Your task to perform on an android device: Show the shopping cart on newegg.com. Search for alienware area 51 on newegg.com, select the first entry, add it to the cart, then select checkout. Image 0: 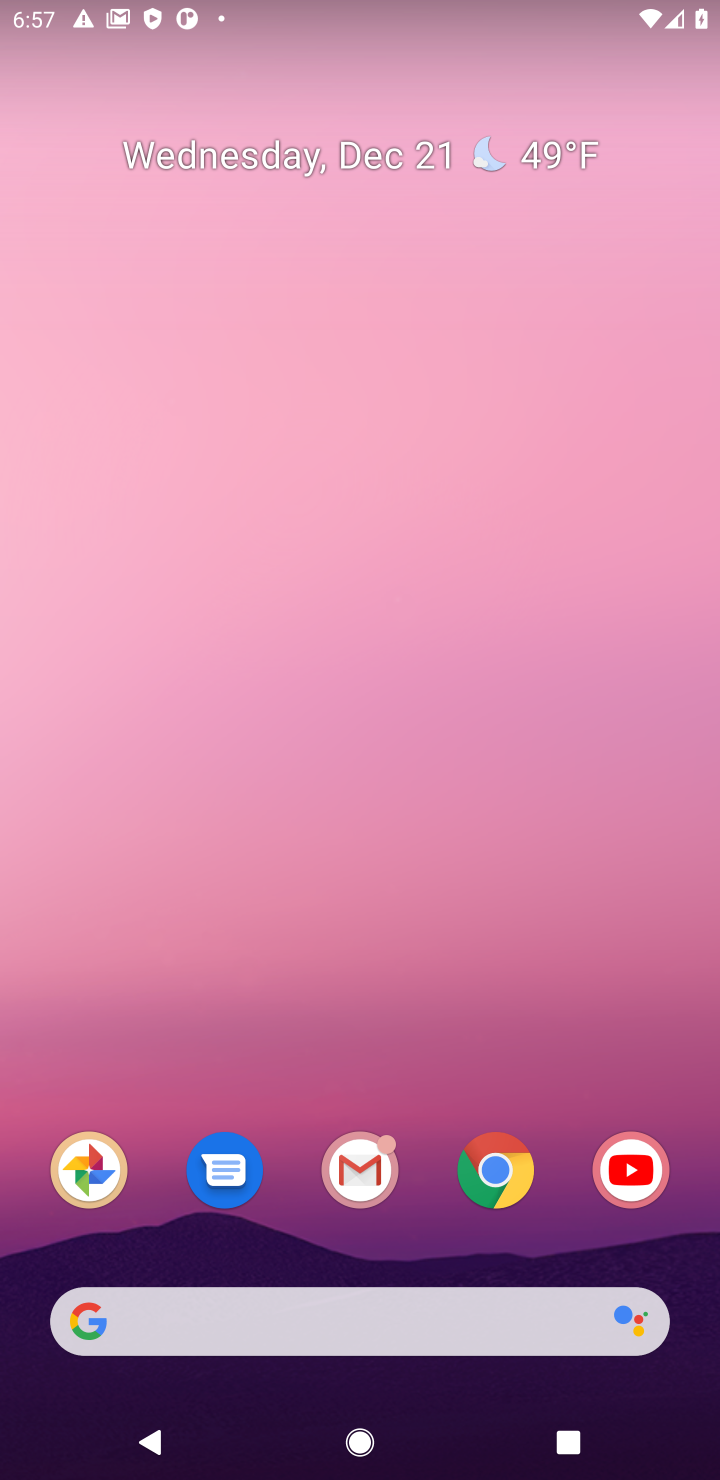
Step 0: click (492, 1168)
Your task to perform on an android device: Show the shopping cart on newegg.com. Search for alienware area 51 on newegg.com, select the first entry, add it to the cart, then select checkout. Image 1: 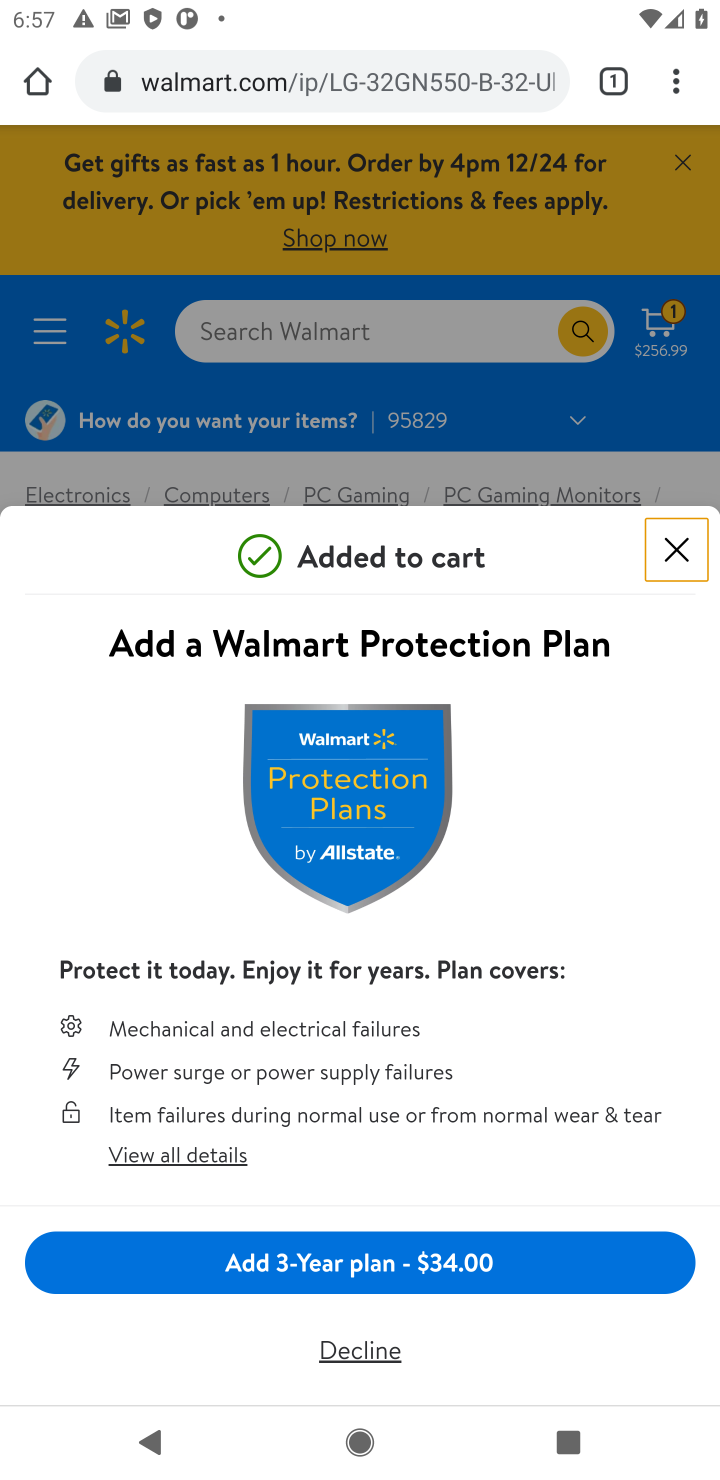
Step 1: click (678, 554)
Your task to perform on an android device: Show the shopping cart on newegg.com. Search for alienware area 51 on newegg.com, select the first entry, add it to the cart, then select checkout. Image 2: 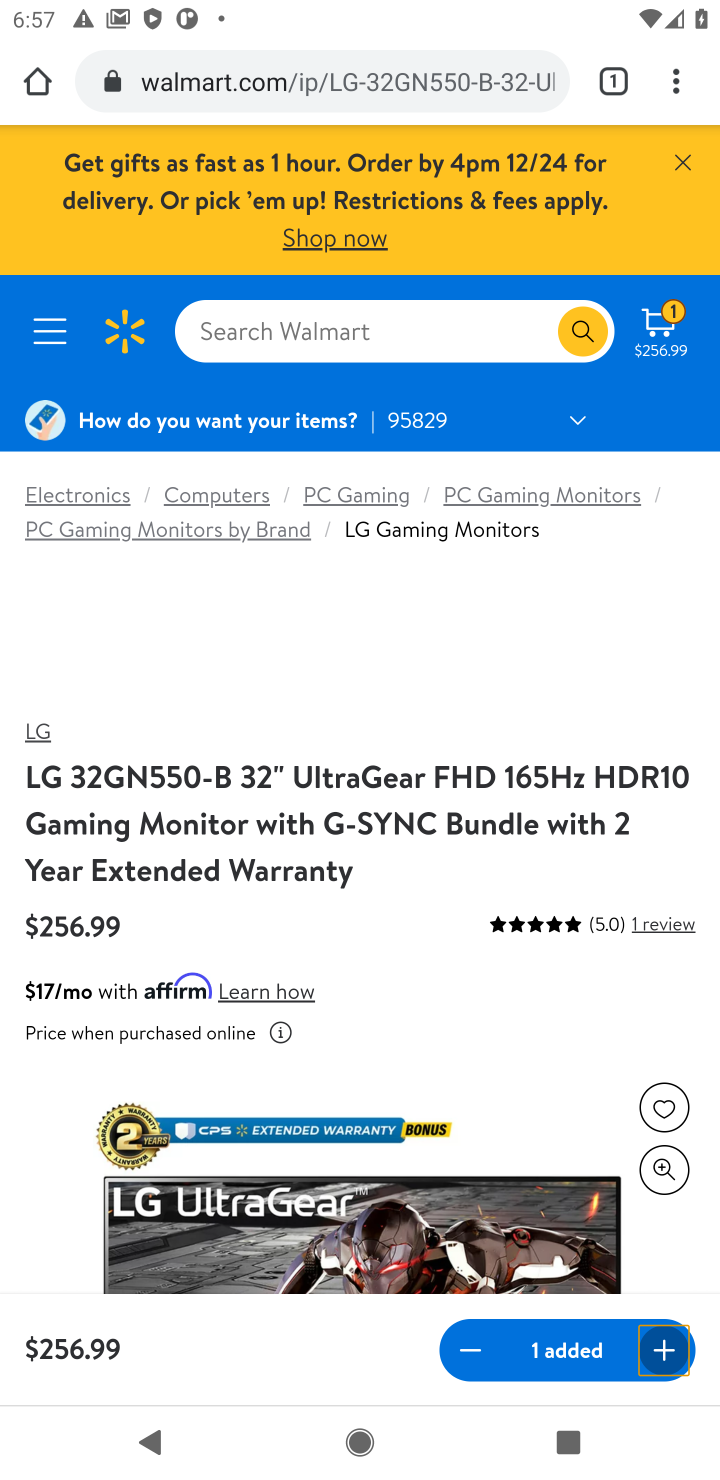
Step 2: click (387, 77)
Your task to perform on an android device: Show the shopping cart on newegg.com. Search for alienware area 51 on newegg.com, select the first entry, add it to the cart, then select checkout. Image 3: 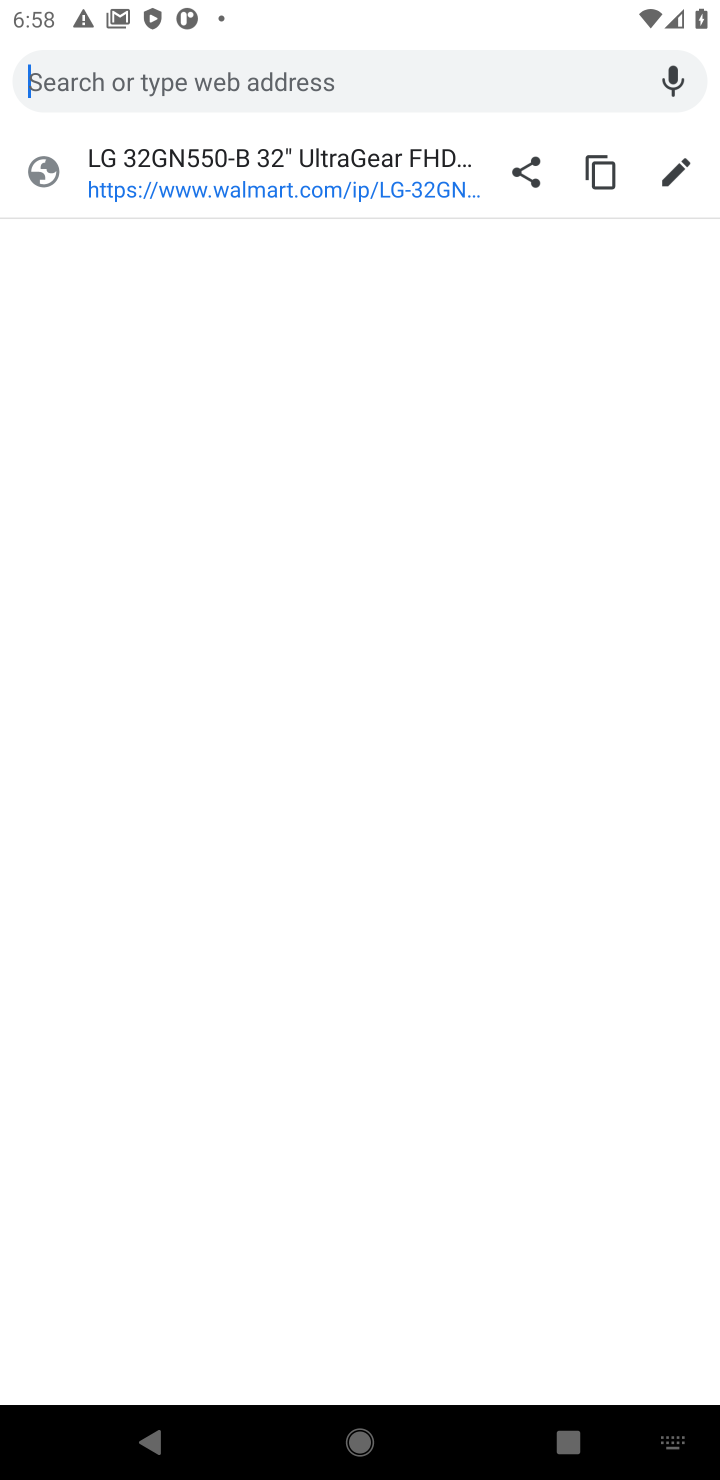
Step 3: type "newegg"
Your task to perform on an android device: Show the shopping cart on newegg.com. Search for alienware area 51 on newegg.com, select the first entry, add it to the cart, then select checkout. Image 4: 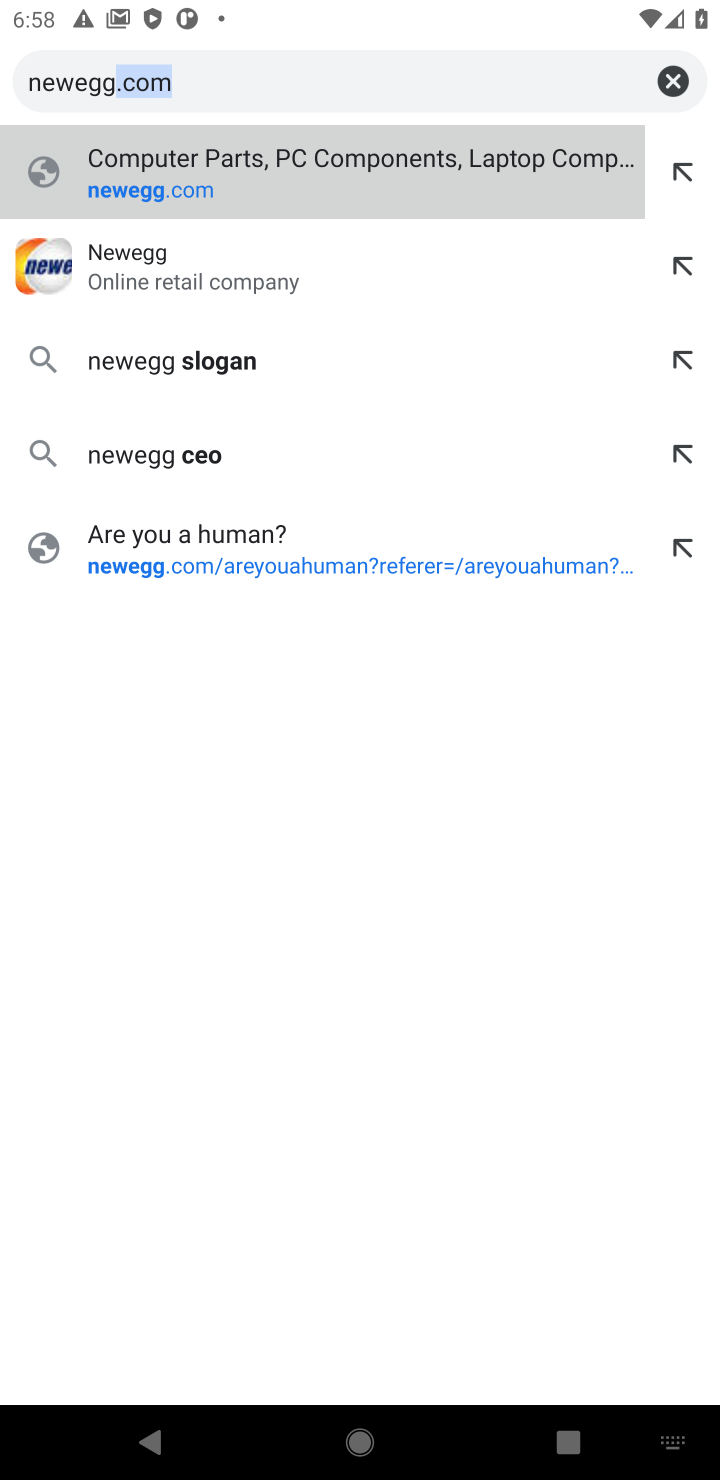
Step 4: click (160, 186)
Your task to perform on an android device: Show the shopping cart on newegg.com. Search for alienware area 51 on newegg.com, select the first entry, add it to the cart, then select checkout. Image 5: 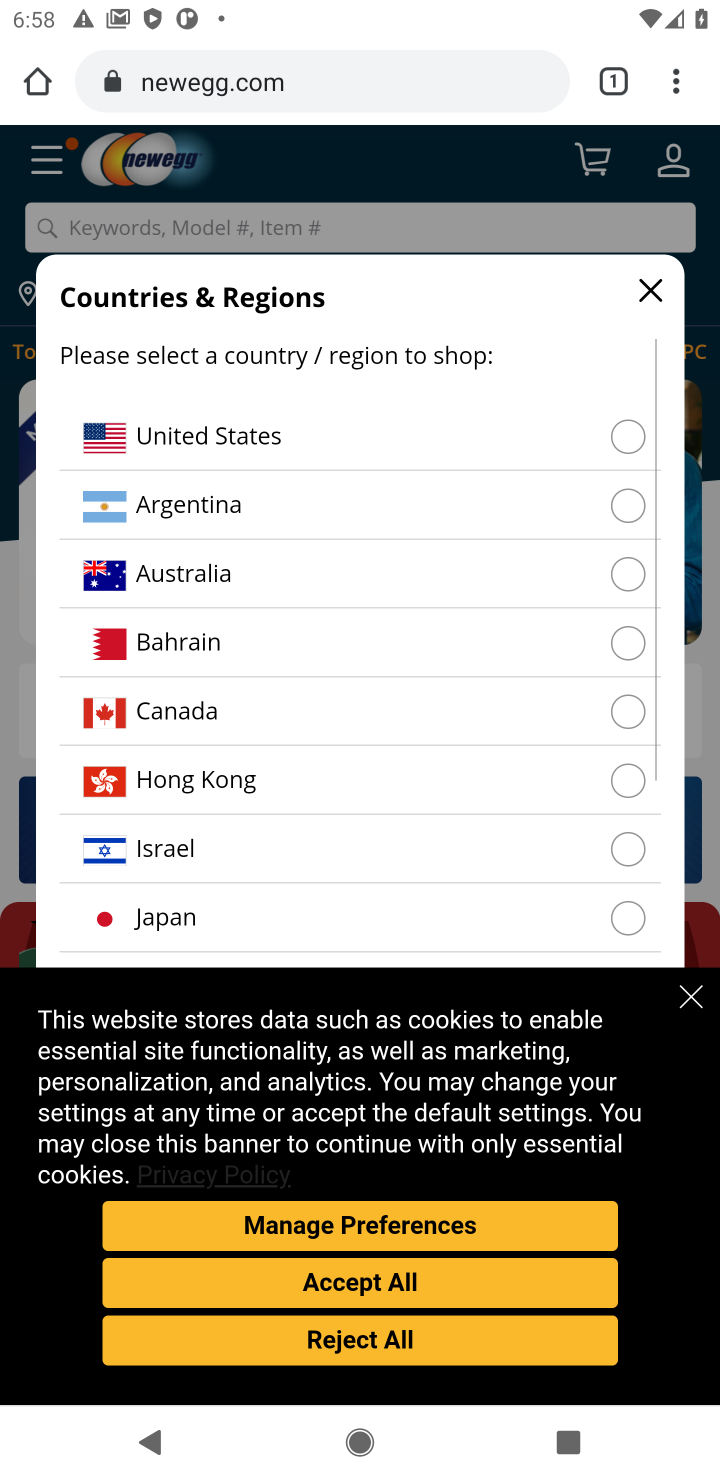
Step 5: click (693, 995)
Your task to perform on an android device: Show the shopping cart on newegg.com. Search for alienware area 51 on newegg.com, select the first entry, add it to the cart, then select checkout. Image 6: 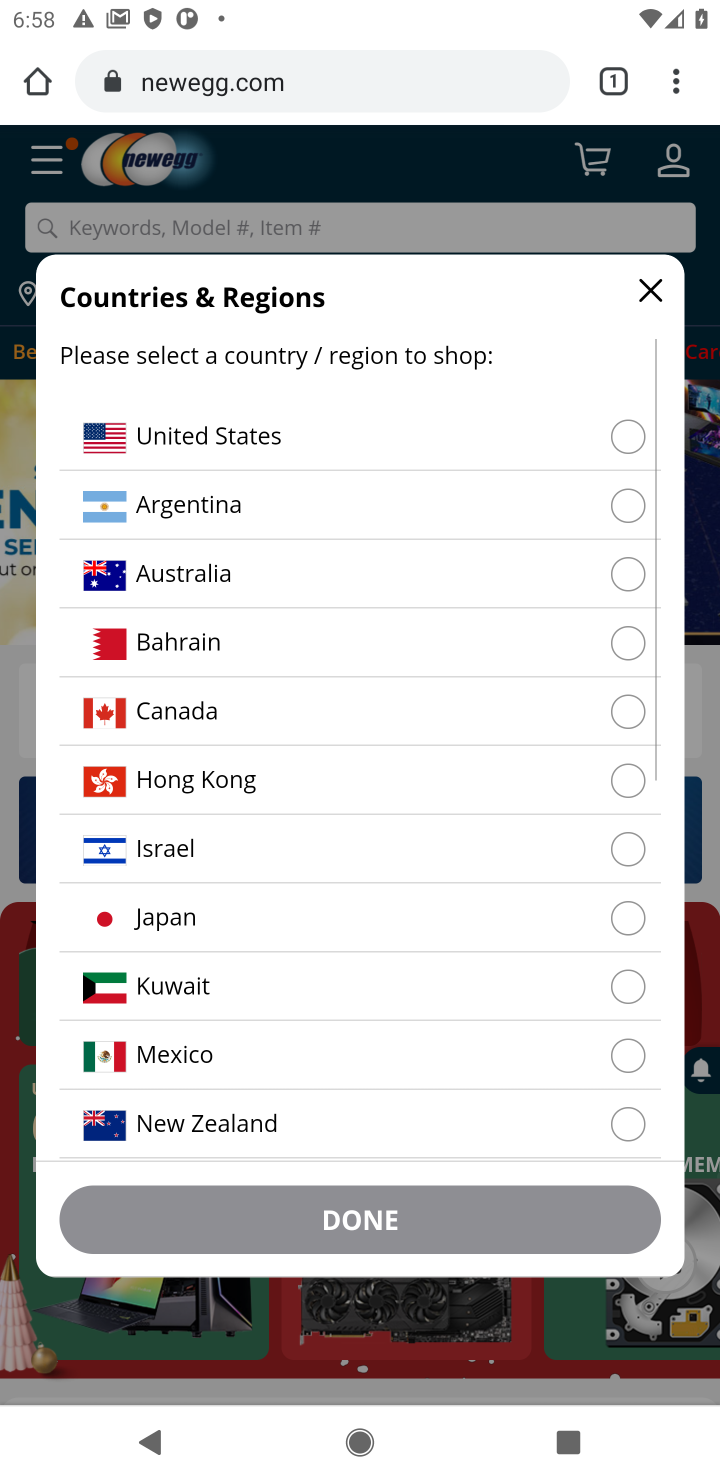
Step 6: click (526, 432)
Your task to perform on an android device: Show the shopping cart on newegg.com. Search for alienware area 51 on newegg.com, select the first entry, add it to the cart, then select checkout. Image 7: 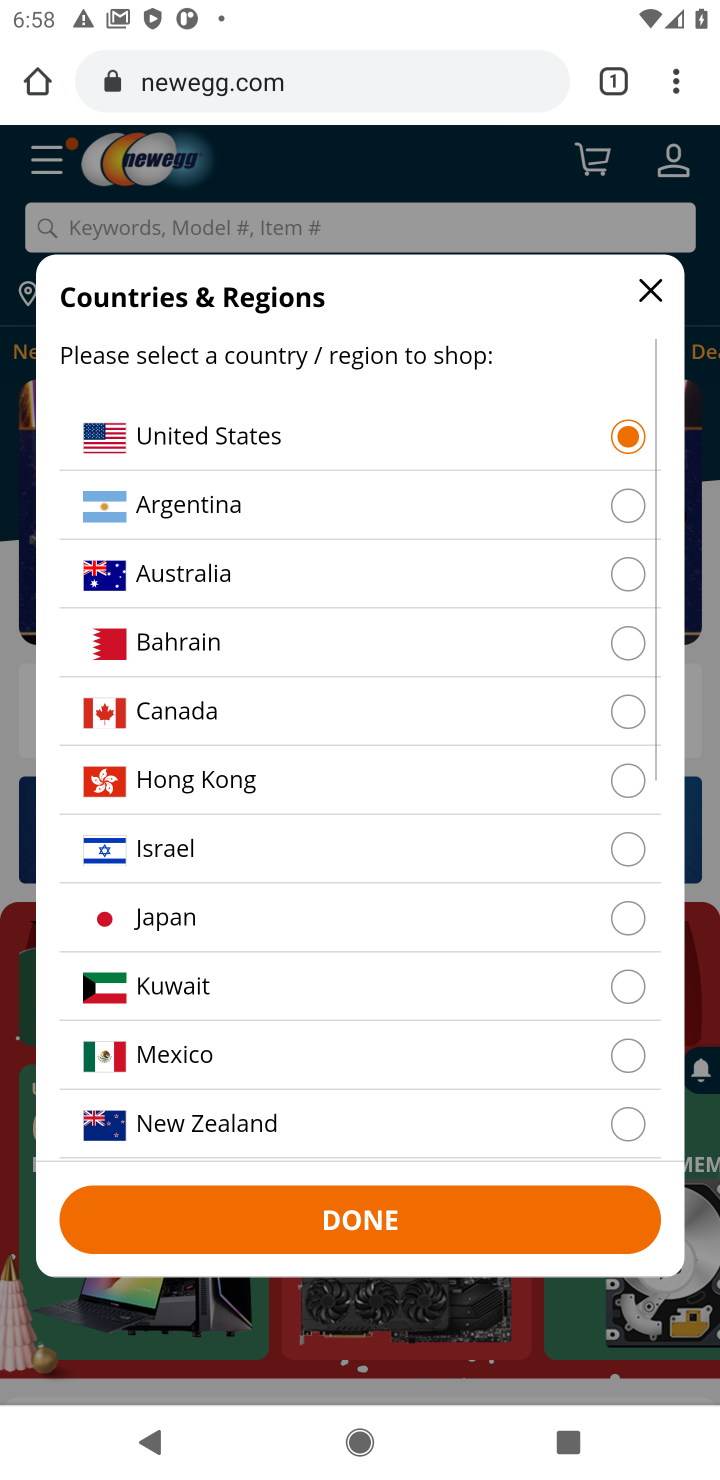
Step 7: click (460, 1229)
Your task to perform on an android device: Show the shopping cart on newegg.com. Search for alienware area 51 on newegg.com, select the first entry, add it to the cart, then select checkout. Image 8: 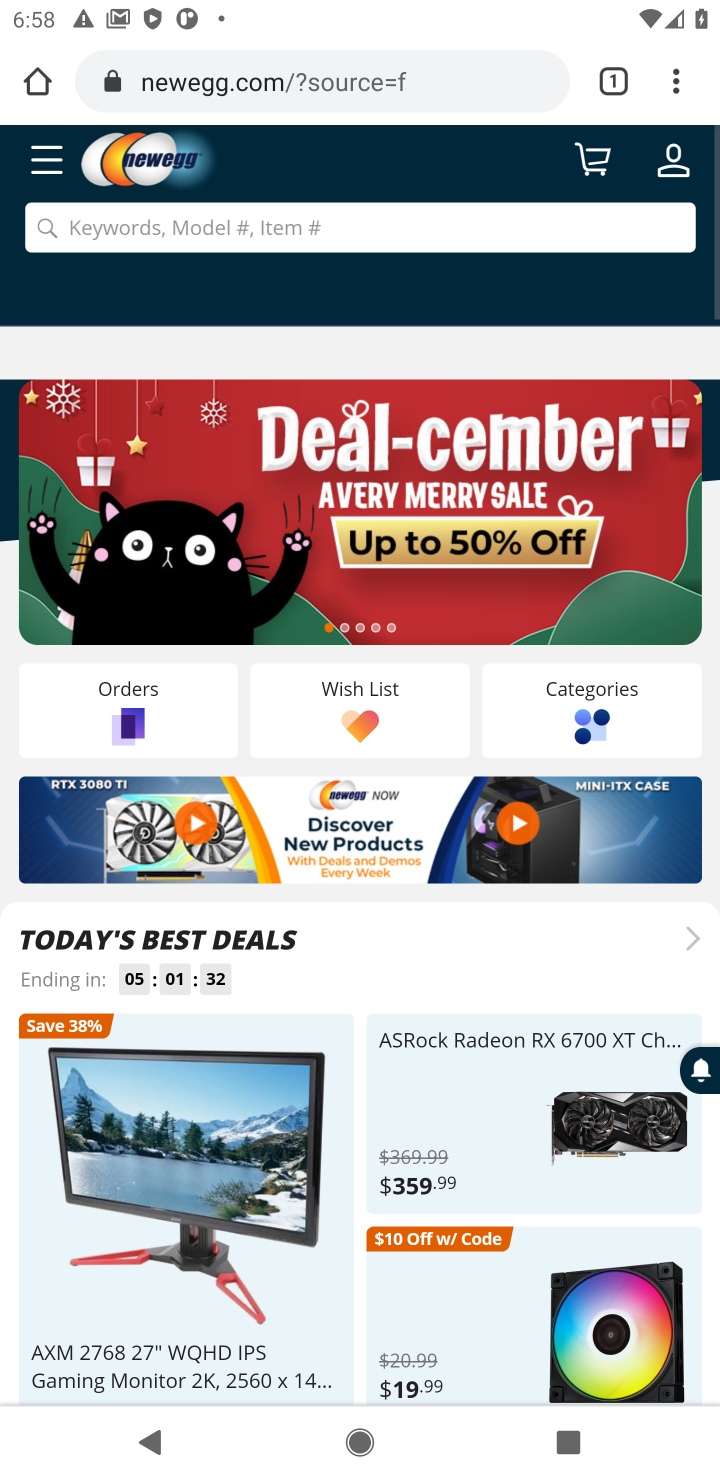
Step 8: click (314, 226)
Your task to perform on an android device: Show the shopping cart on newegg.com. Search for alienware area 51 on newegg.com, select the first entry, add it to the cart, then select checkout. Image 9: 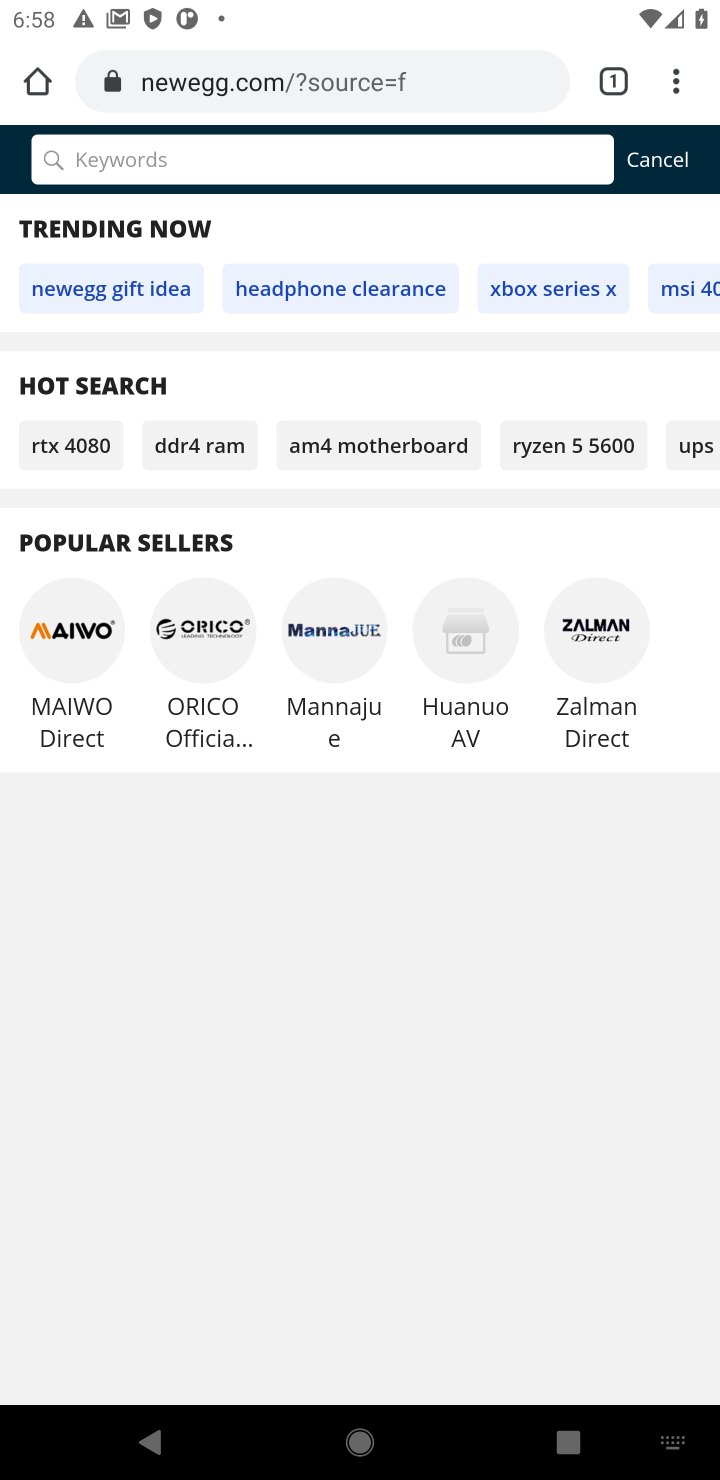
Step 9: type "alienware"
Your task to perform on an android device: Show the shopping cart on newegg.com. Search for alienware area 51 on newegg.com, select the first entry, add it to the cart, then select checkout. Image 10: 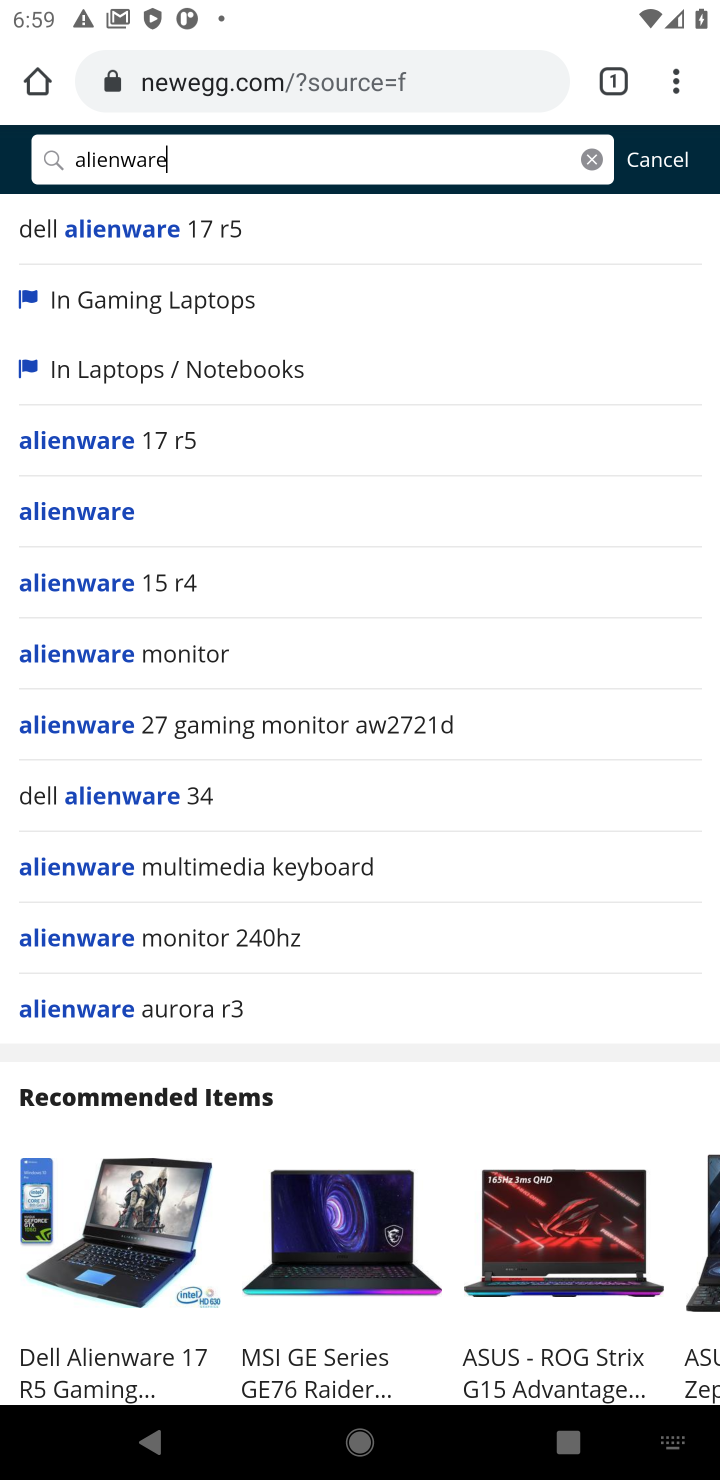
Step 10: type "area 51"
Your task to perform on an android device: Show the shopping cart on newegg.com. Search for alienware area 51 on newegg.com, select the first entry, add it to the cart, then select checkout. Image 11: 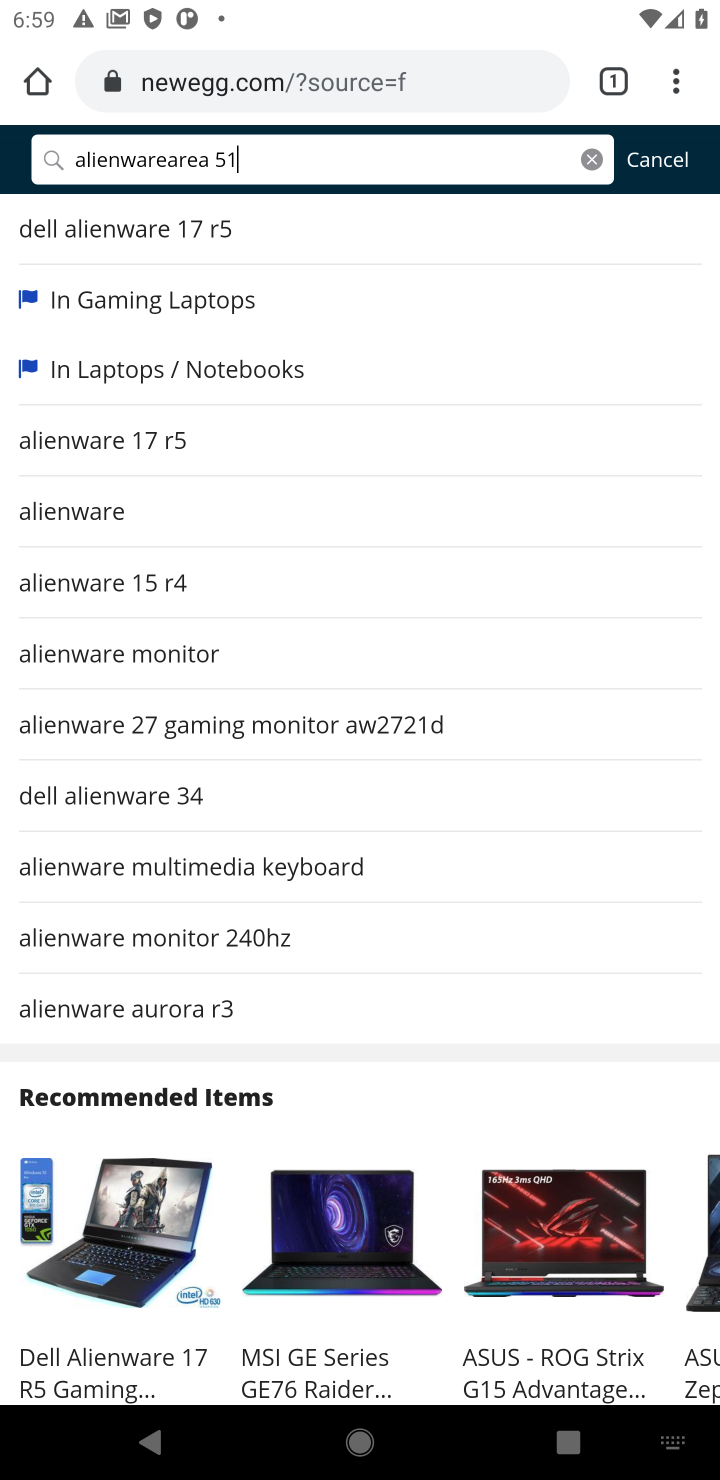
Step 11: click (102, 223)
Your task to perform on an android device: Show the shopping cart on newegg.com. Search for alienware area 51 on newegg.com, select the first entry, add it to the cart, then select checkout. Image 12: 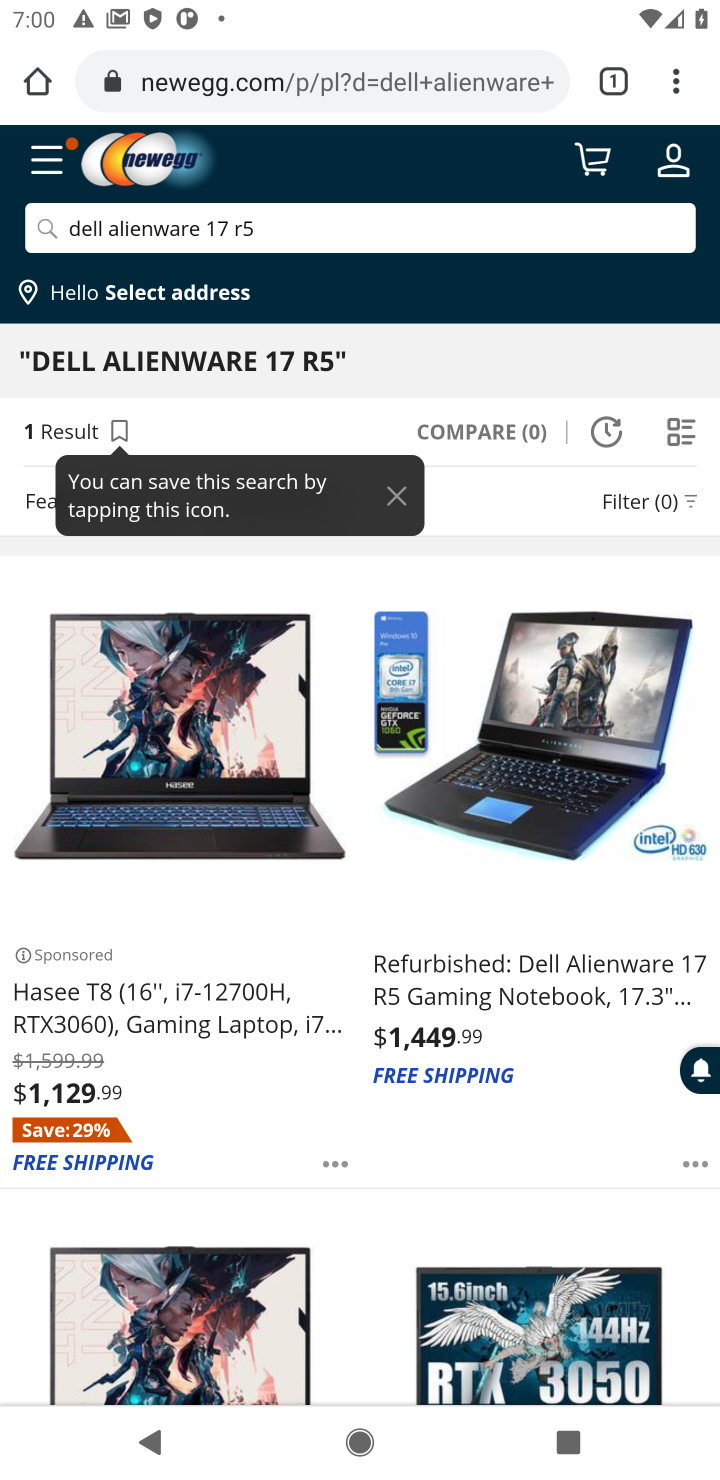
Step 12: click (87, 834)
Your task to perform on an android device: Show the shopping cart on newegg.com. Search for alienware area 51 on newegg.com, select the first entry, add it to the cart, then select checkout. Image 13: 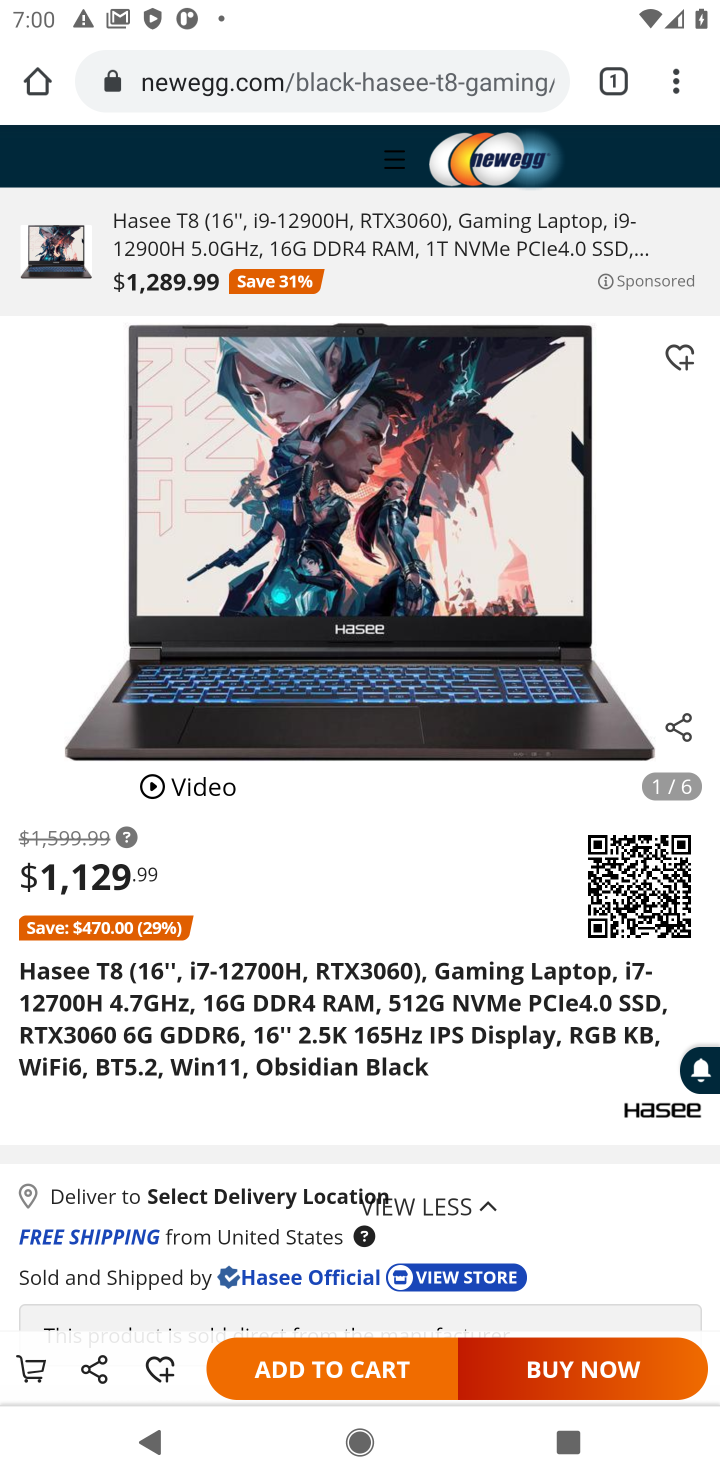
Step 13: click (252, 728)
Your task to perform on an android device: Show the shopping cart on newegg.com. Search for alienware area 51 on newegg.com, select the first entry, add it to the cart, then select checkout. Image 14: 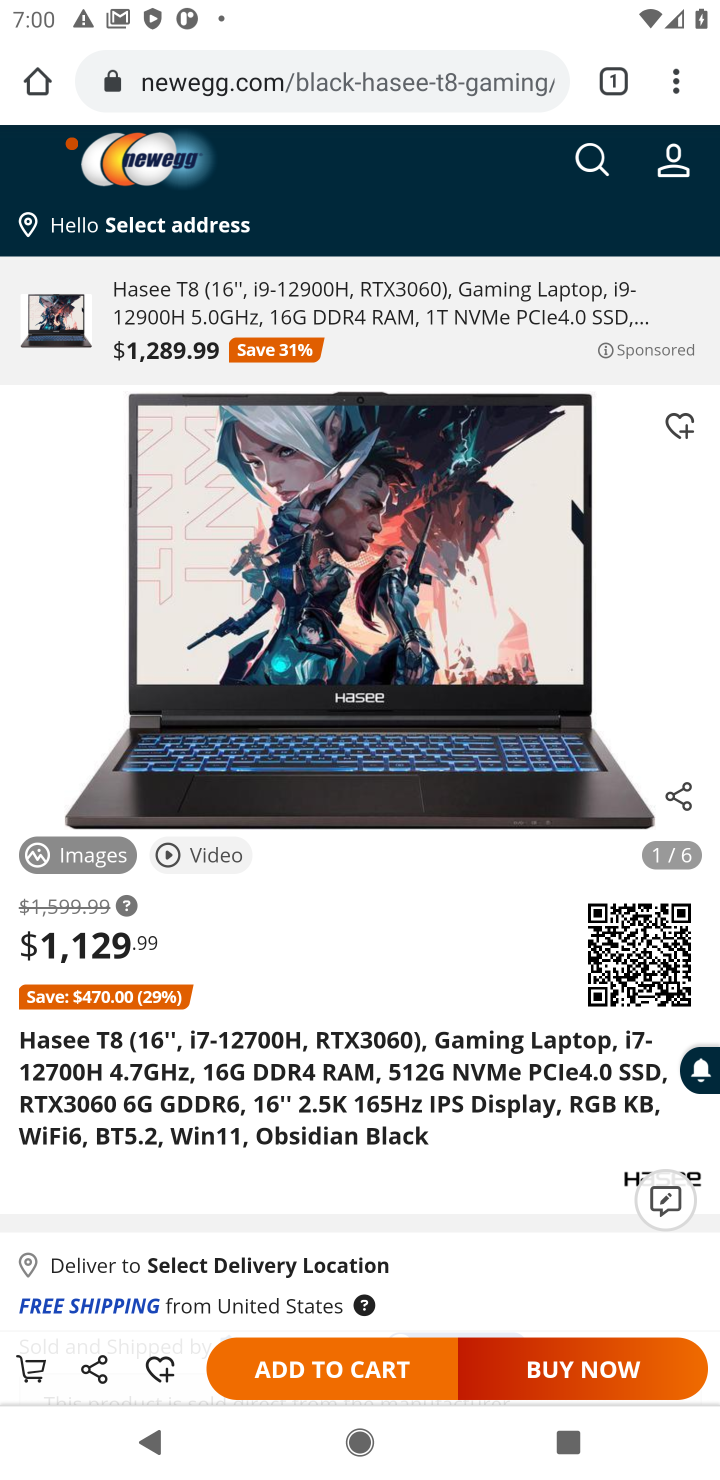
Step 14: click (349, 1369)
Your task to perform on an android device: Show the shopping cart on newegg.com. Search for alienware area 51 on newegg.com, select the first entry, add it to the cart, then select checkout. Image 15: 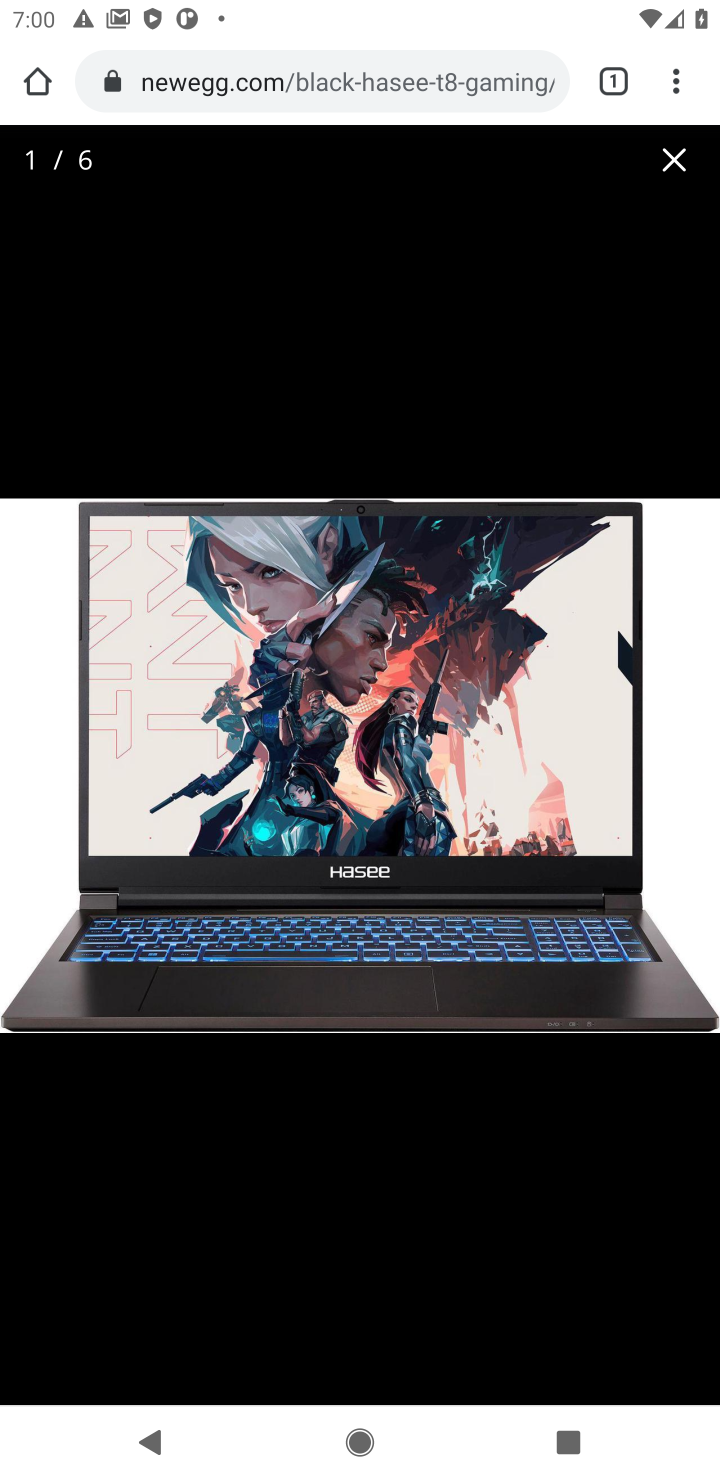
Step 15: click (669, 166)
Your task to perform on an android device: Show the shopping cart on newegg.com. Search for alienware area 51 on newegg.com, select the first entry, add it to the cart, then select checkout. Image 16: 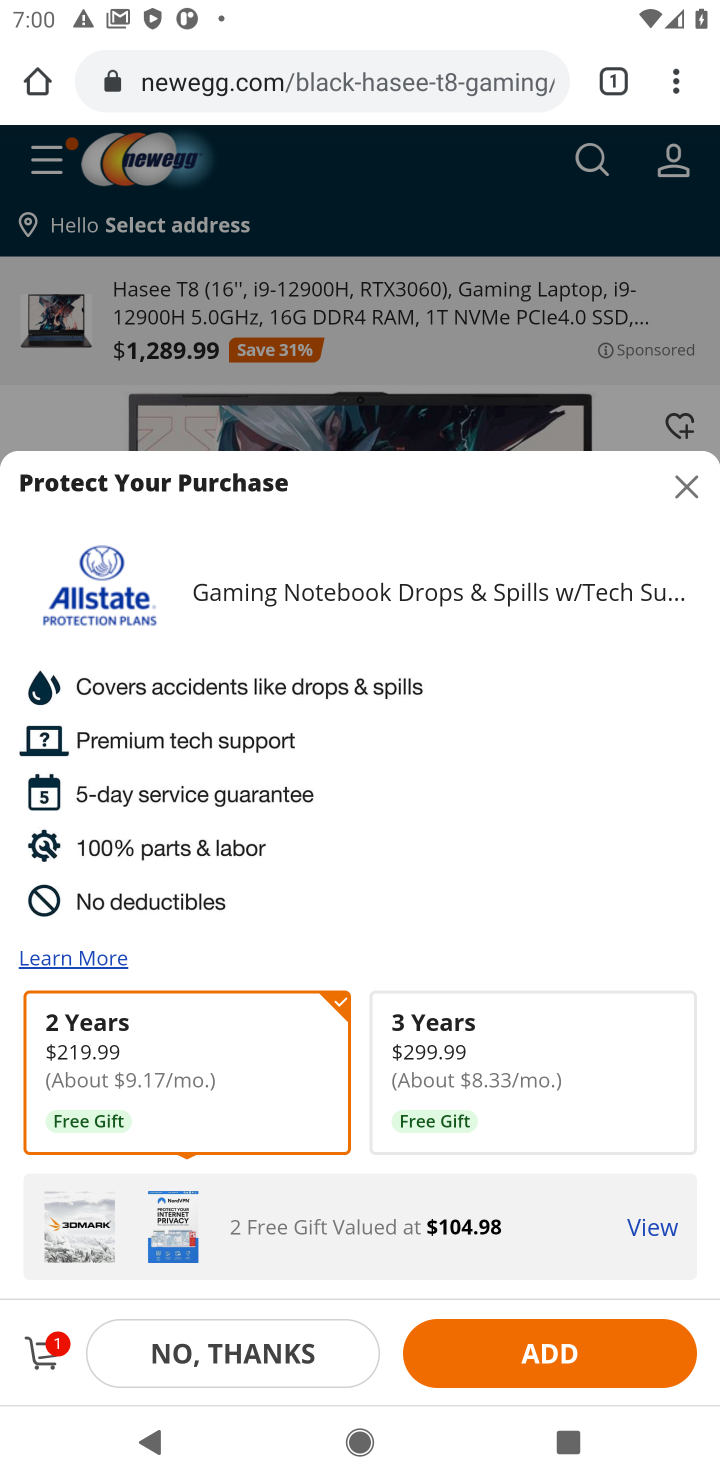
Step 16: click (34, 1352)
Your task to perform on an android device: Show the shopping cart on newegg.com. Search for alienware area 51 on newegg.com, select the first entry, add it to the cart, then select checkout. Image 17: 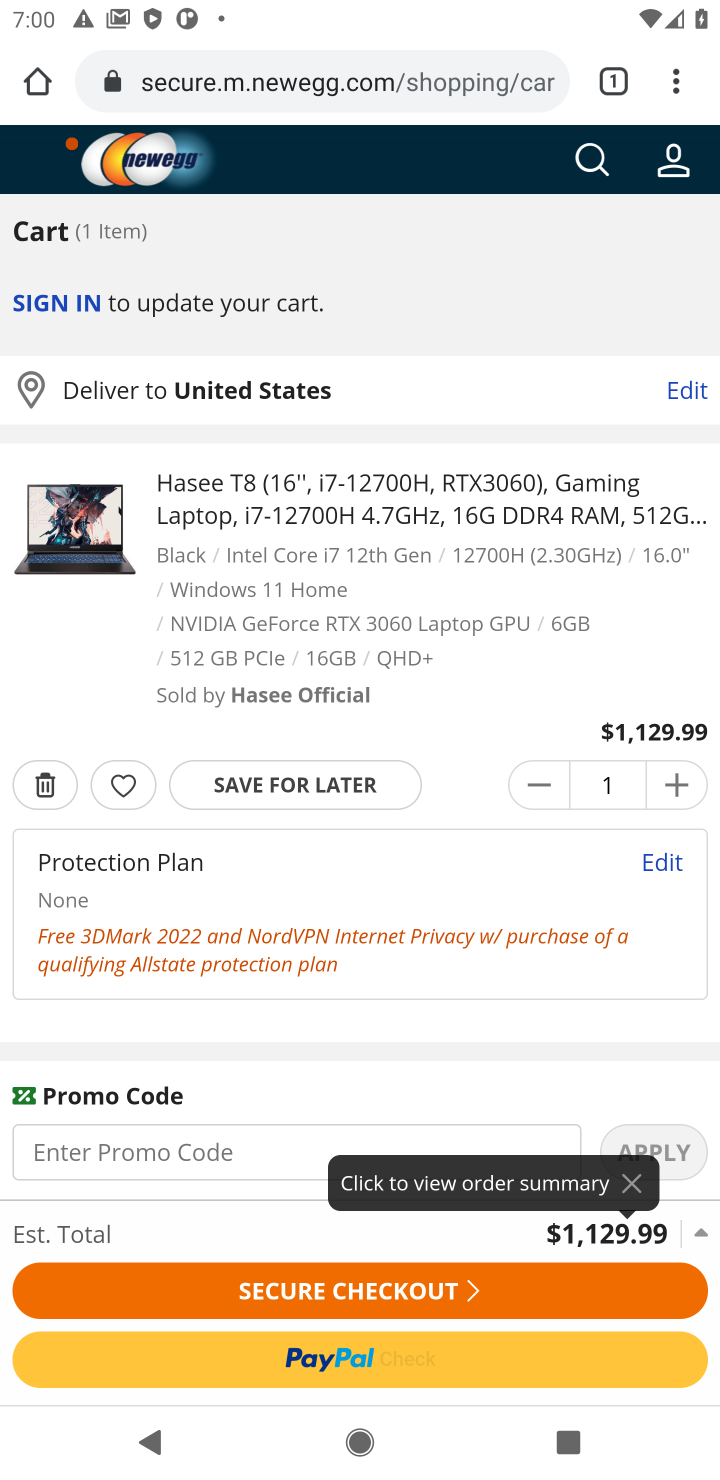
Step 17: click (394, 1292)
Your task to perform on an android device: Show the shopping cart on newegg.com. Search for alienware area 51 on newegg.com, select the first entry, add it to the cart, then select checkout. Image 18: 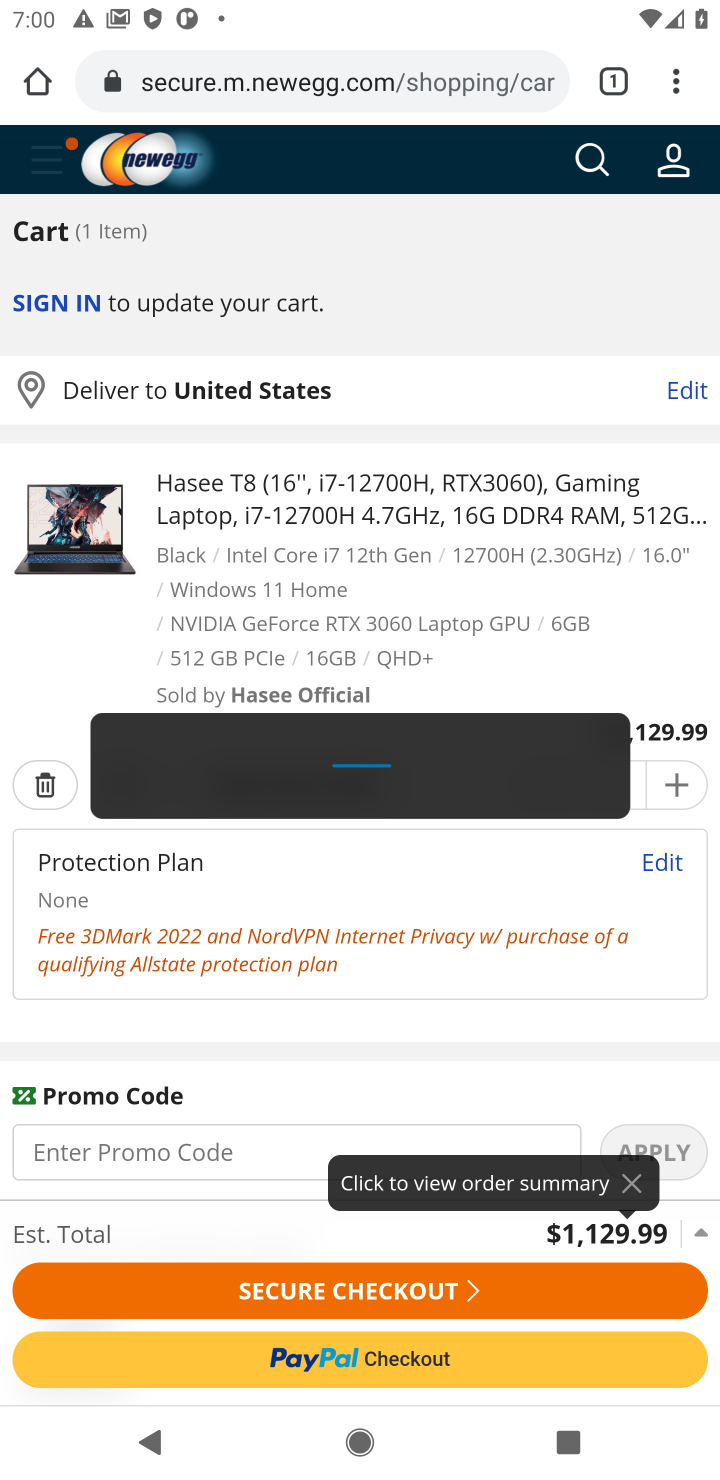
Step 18: task complete